Your task to perform on an android device: Open privacy settings Image 0: 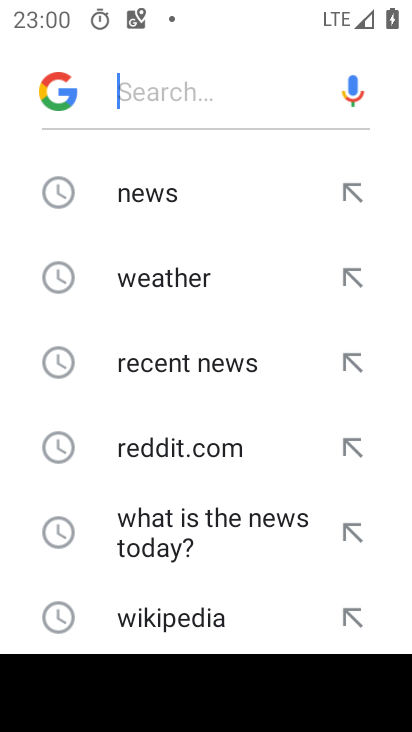
Step 0: press home button
Your task to perform on an android device: Open privacy settings Image 1: 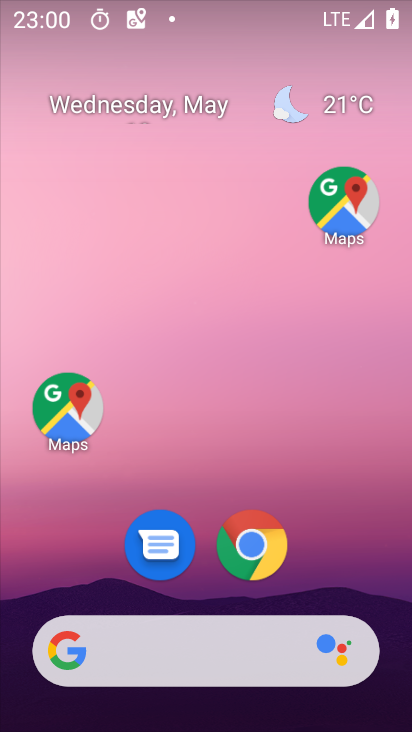
Step 1: drag from (305, 584) to (300, 211)
Your task to perform on an android device: Open privacy settings Image 2: 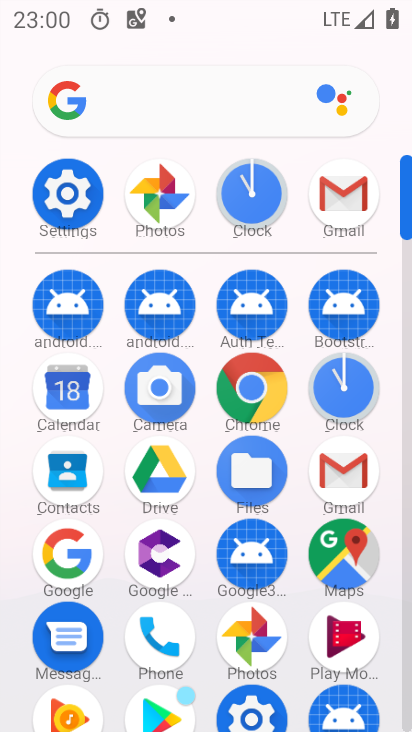
Step 2: click (64, 188)
Your task to perform on an android device: Open privacy settings Image 3: 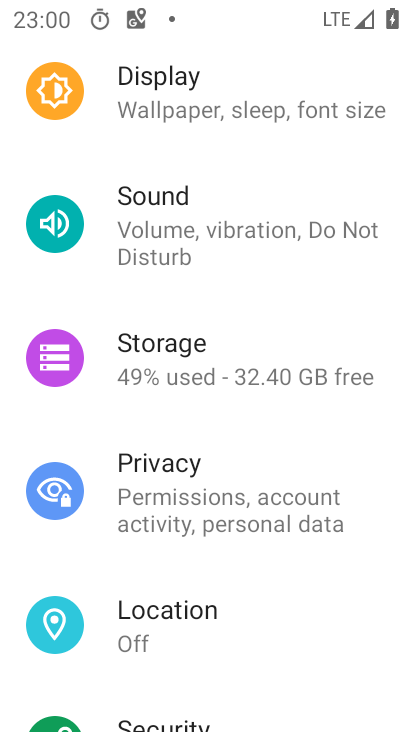
Step 3: click (156, 514)
Your task to perform on an android device: Open privacy settings Image 4: 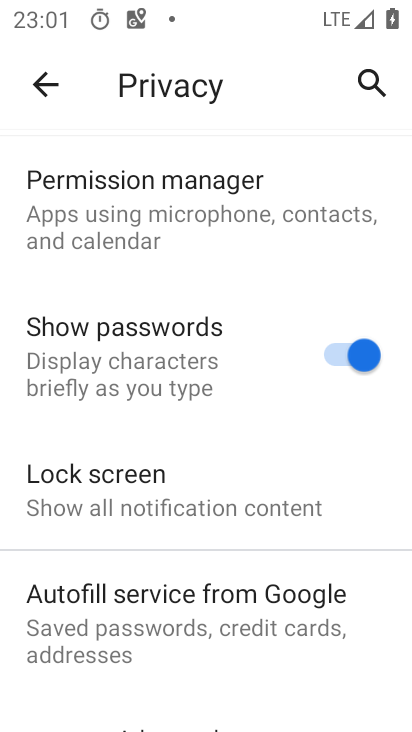
Step 4: task complete